Your task to perform on an android device: Open privacy settings Image 0: 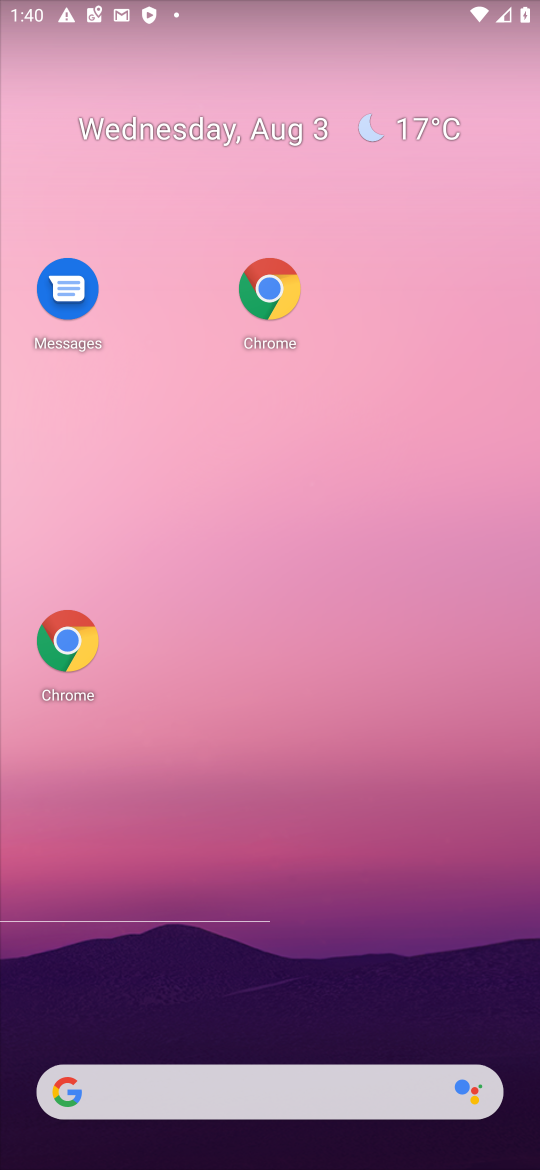
Step 0: drag from (400, 1020) to (334, 252)
Your task to perform on an android device: Open privacy settings Image 1: 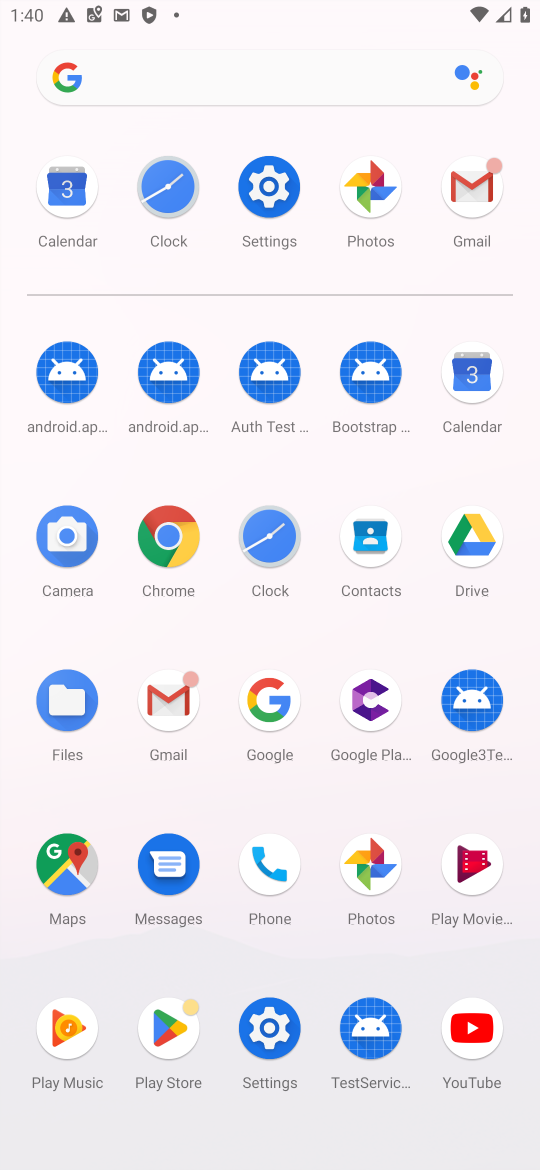
Step 1: click (289, 214)
Your task to perform on an android device: Open privacy settings Image 2: 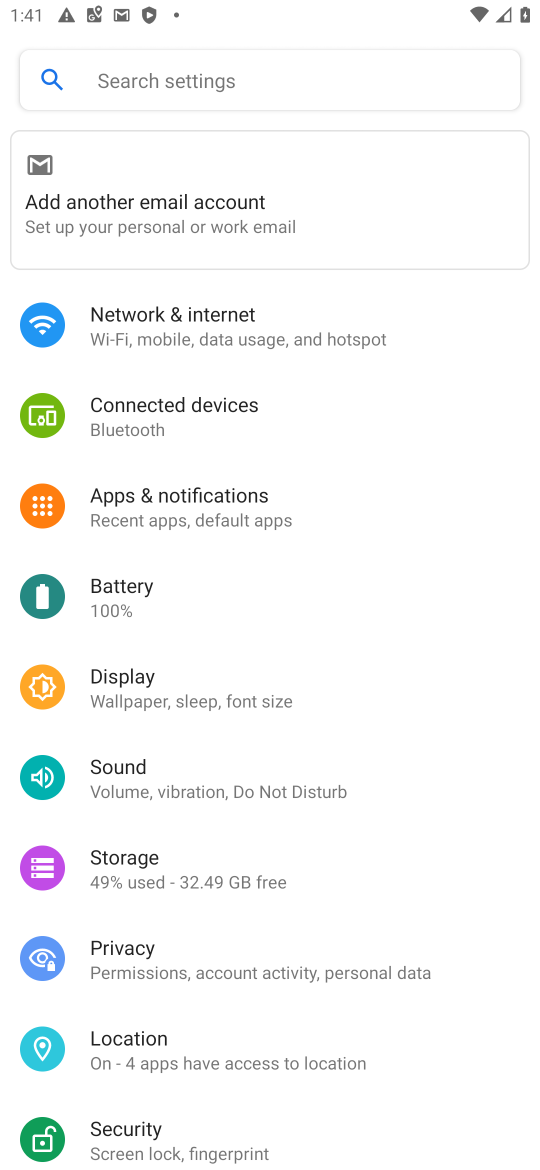
Step 2: click (320, 951)
Your task to perform on an android device: Open privacy settings Image 3: 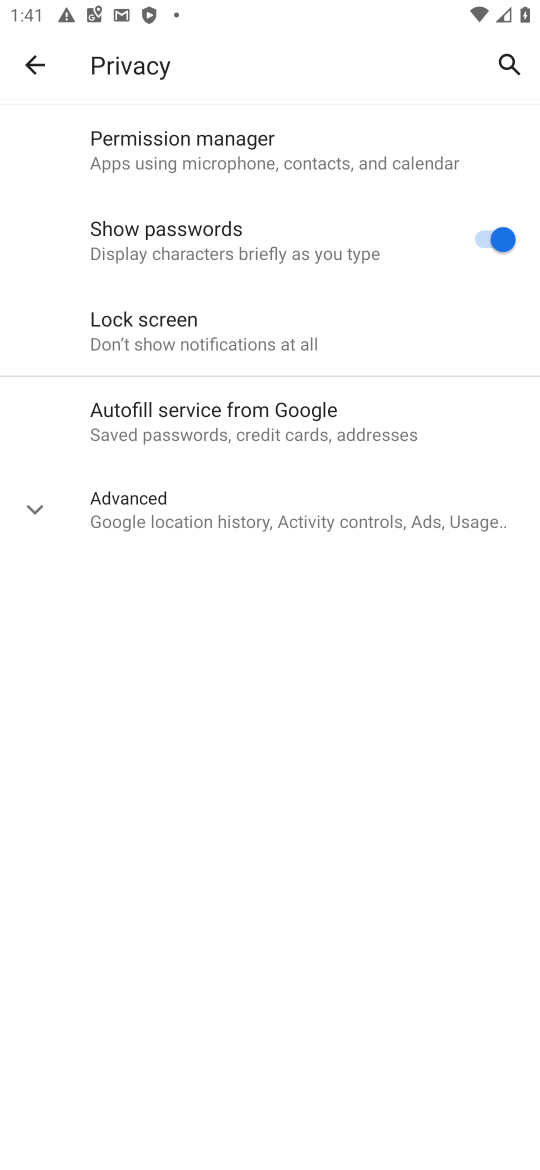
Step 3: click (217, 520)
Your task to perform on an android device: Open privacy settings Image 4: 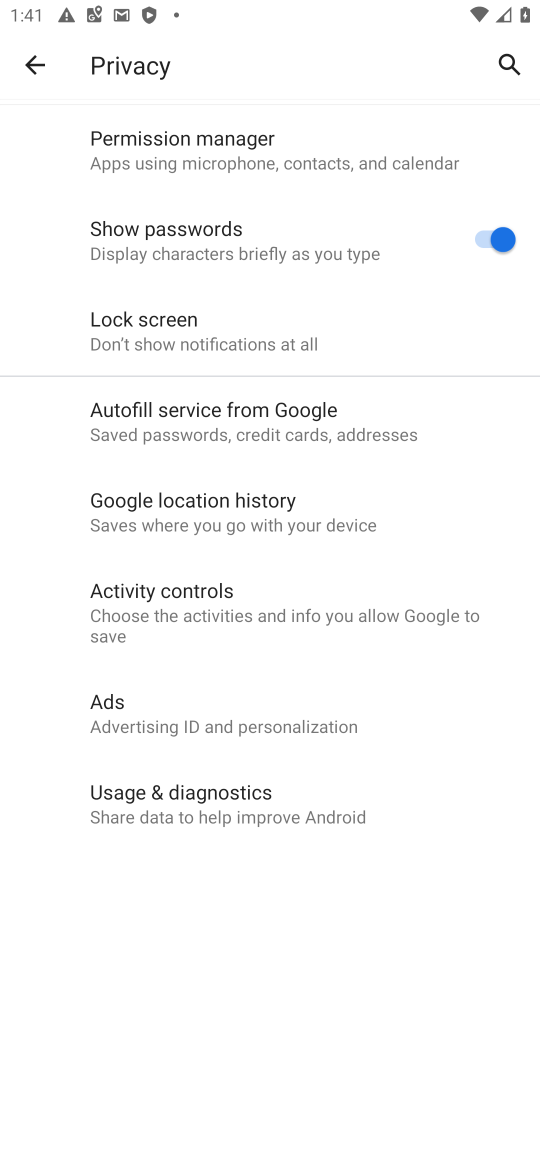
Step 4: task complete